Your task to perform on an android device: check google app version Image 0: 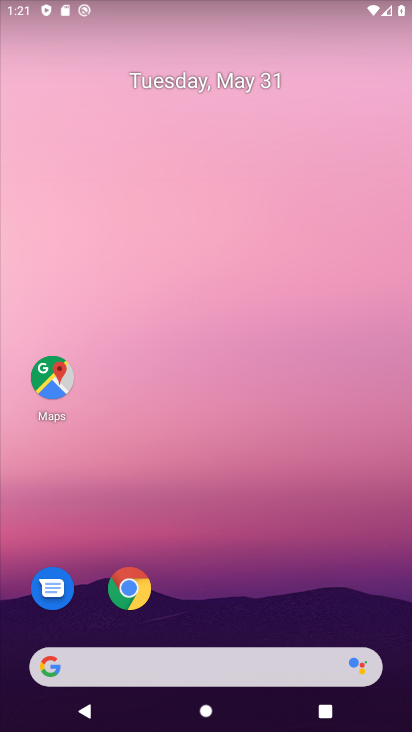
Step 0: drag from (271, 621) to (197, 6)
Your task to perform on an android device: check google app version Image 1: 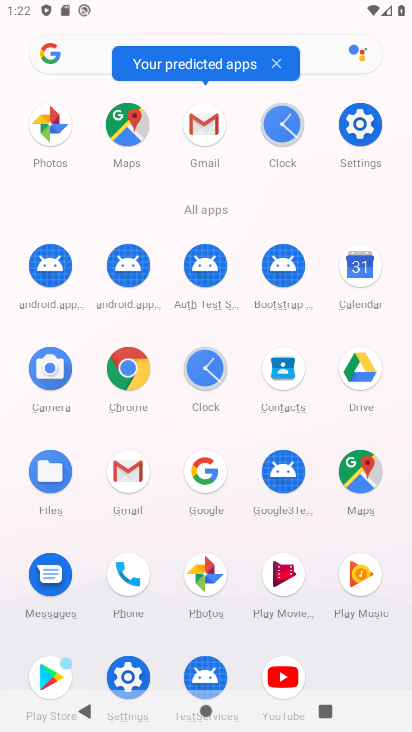
Step 1: click (121, 374)
Your task to perform on an android device: check google app version Image 2: 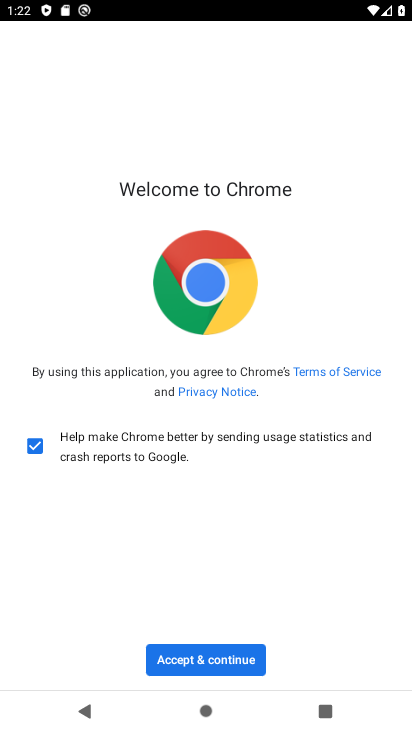
Step 2: click (212, 651)
Your task to perform on an android device: check google app version Image 3: 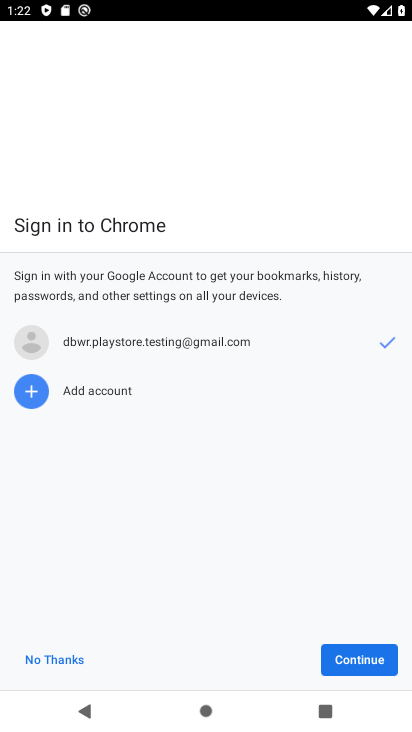
Step 3: click (349, 657)
Your task to perform on an android device: check google app version Image 4: 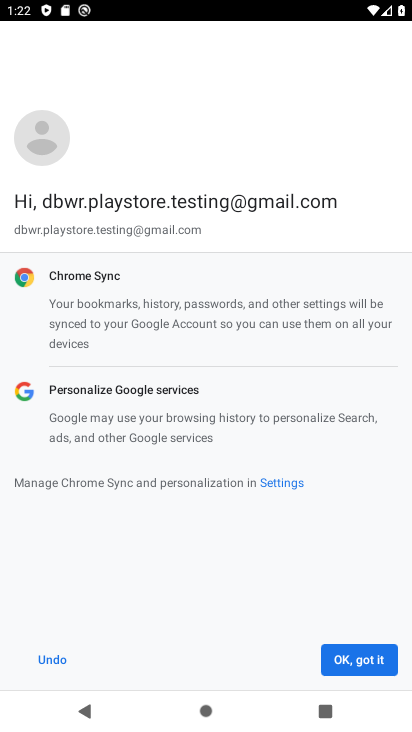
Step 4: click (349, 657)
Your task to perform on an android device: check google app version Image 5: 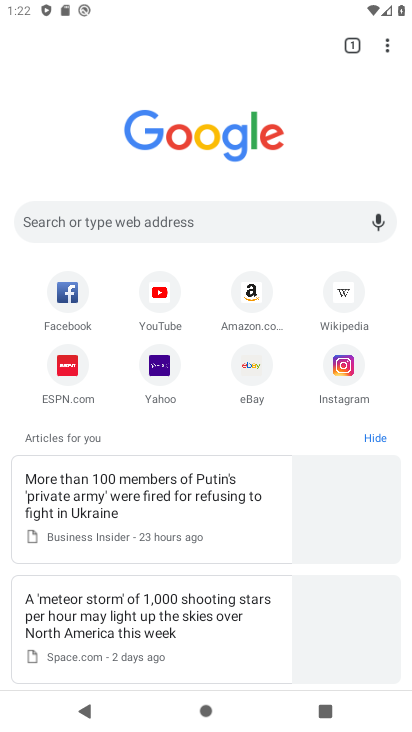
Step 5: click (387, 48)
Your task to perform on an android device: check google app version Image 6: 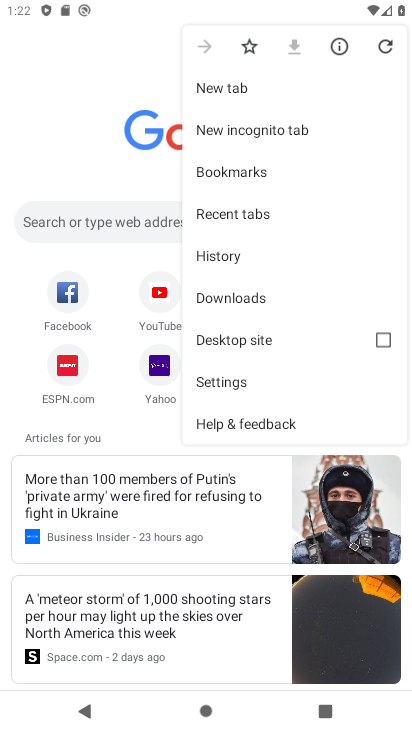
Step 6: click (281, 415)
Your task to perform on an android device: check google app version Image 7: 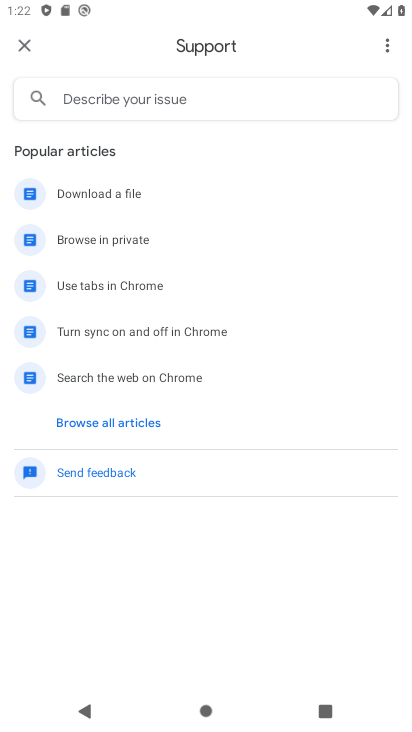
Step 7: click (388, 50)
Your task to perform on an android device: check google app version Image 8: 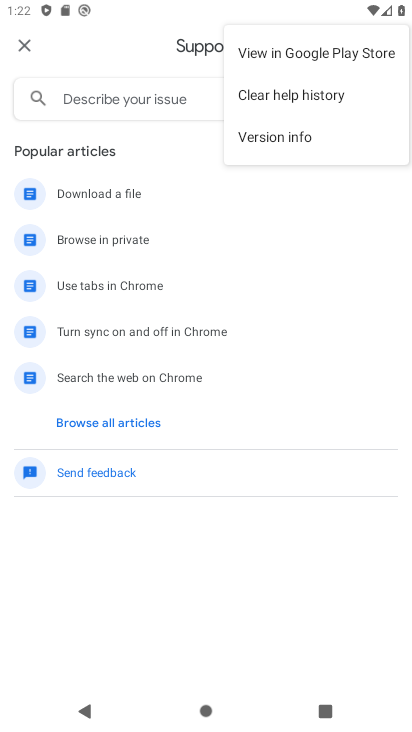
Step 8: click (338, 142)
Your task to perform on an android device: check google app version Image 9: 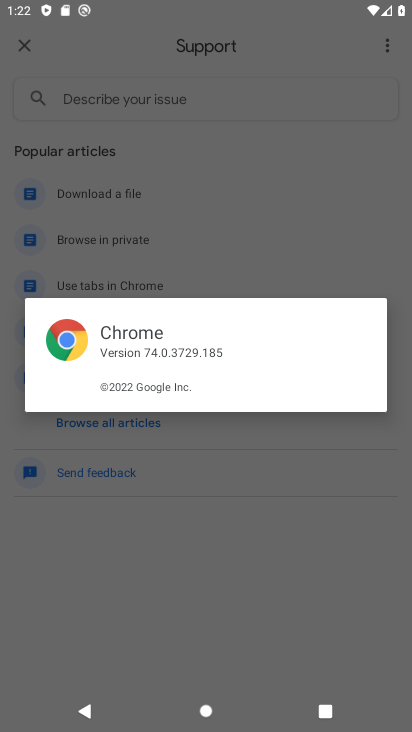
Step 9: task complete